Your task to perform on an android device: open a new tab in the chrome app Image 0: 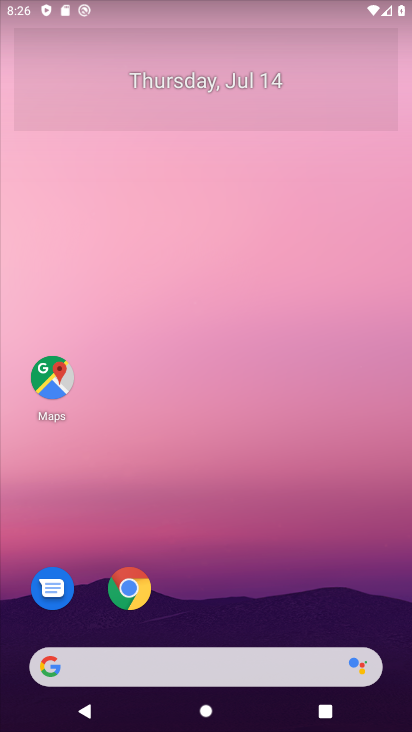
Step 0: click (131, 583)
Your task to perform on an android device: open a new tab in the chrome app Image 1: 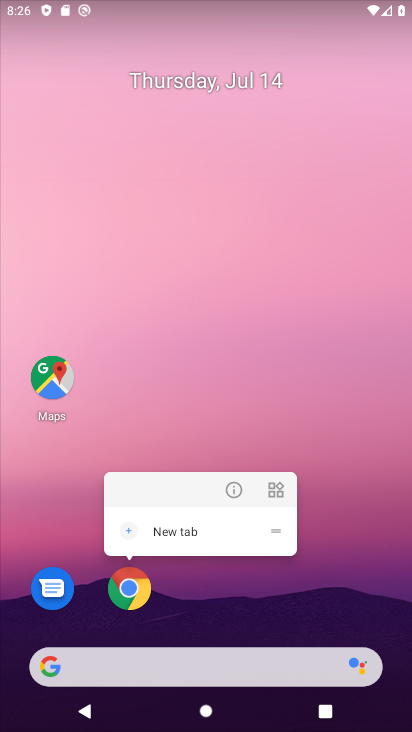
Step 1: click (136, 573)
Your task to perform on an android device: open a new tab in the chrome app Image 2: 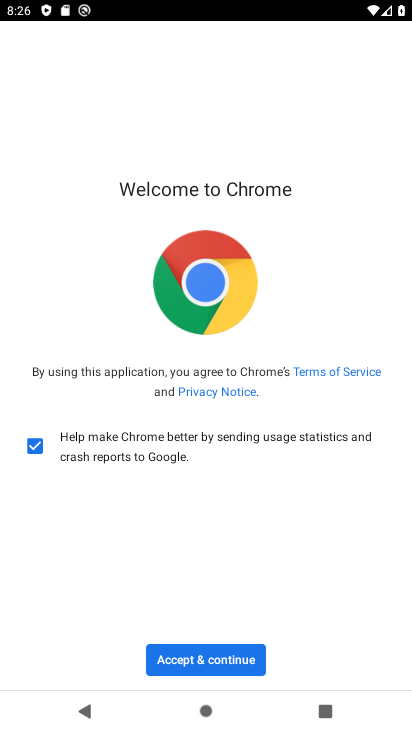
Step 2: click (216, 656)
Your task to perform on an android device: open a new tab in the chrome app Image 3: 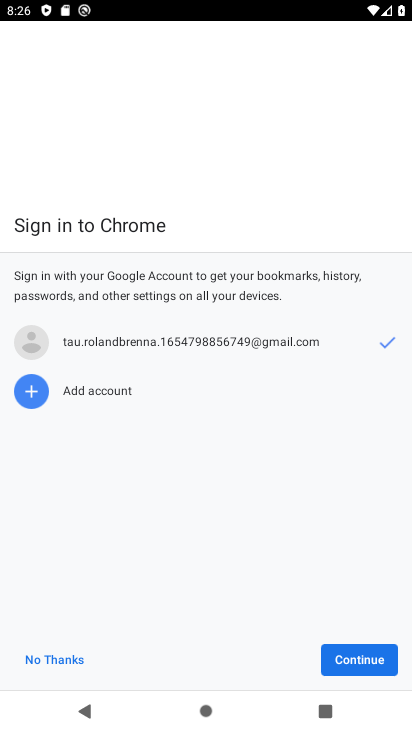
Step 3: click (349, 649)
Your task to perform on an android device: open a new tab in the chrome app Image 4: 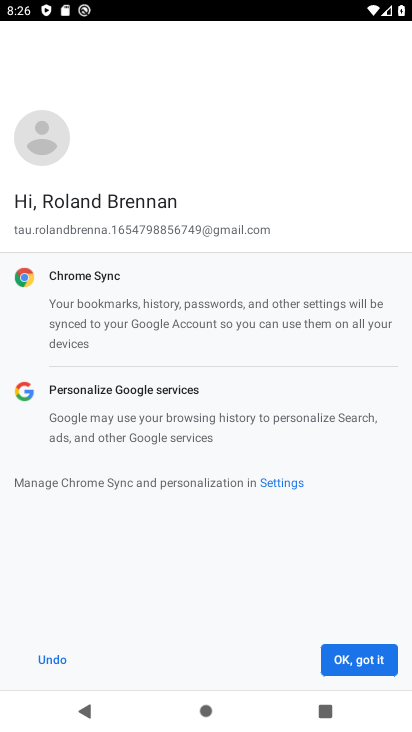
Step 4: click (353, 652)
Your task to perform on an android device: open a new tab in the chrome app Image 5: 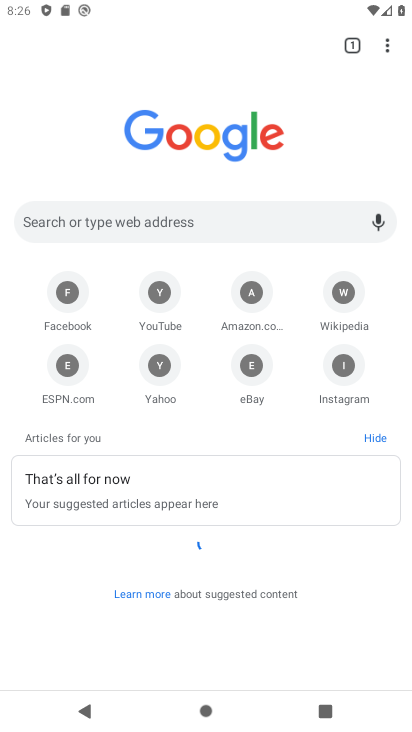
Step 5: click (351, 44)
Your task to perform on an android device: open a new tab in the chrome app Image 6: 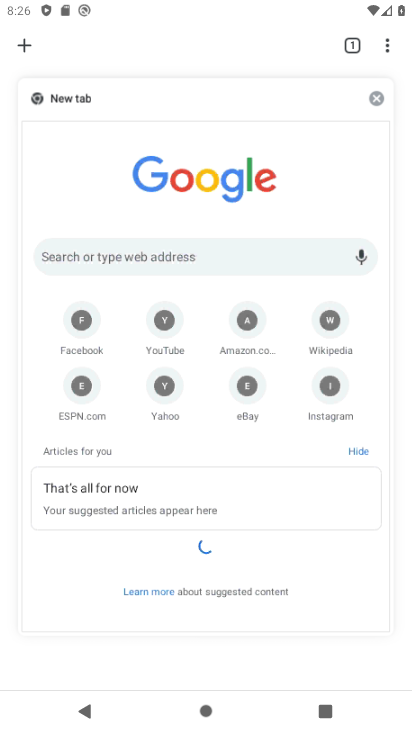
Step 6: click (19, 49)
Your task to perform on an android device: open a new tab in the chrome app Image 7: 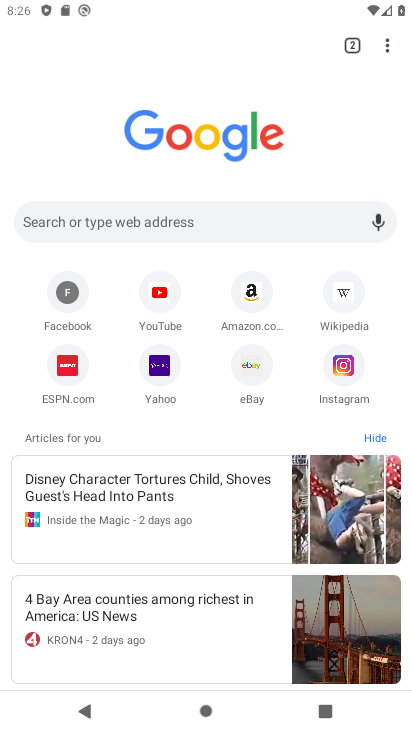
Step 7: task complete